Your task to perform on an android device: turn off picture-in-picture Image 0: 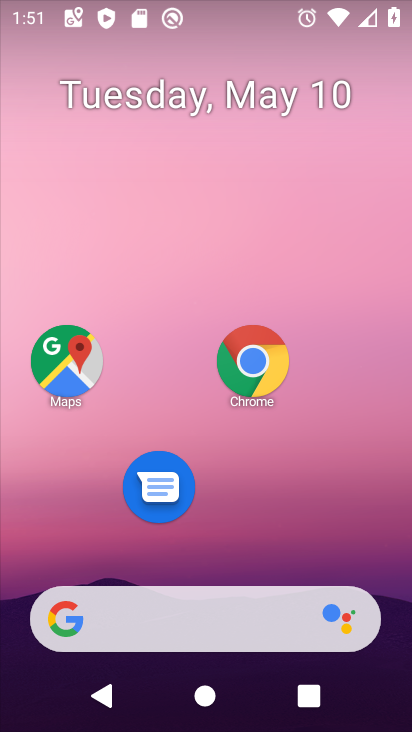
Step 0: drag from (326, 528) to (211, 193)
Your task to perform on an android device: turn off picture-in-picture Image 1: 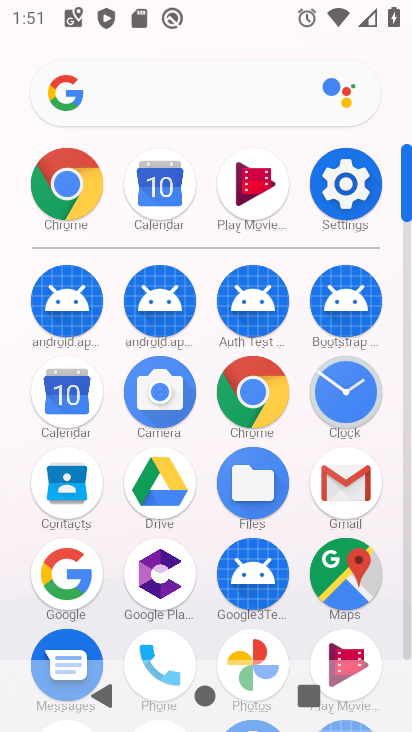
Step 1: click (341, 170)
Your task to perform on an android device: turn off picture-in-picture Image 2: 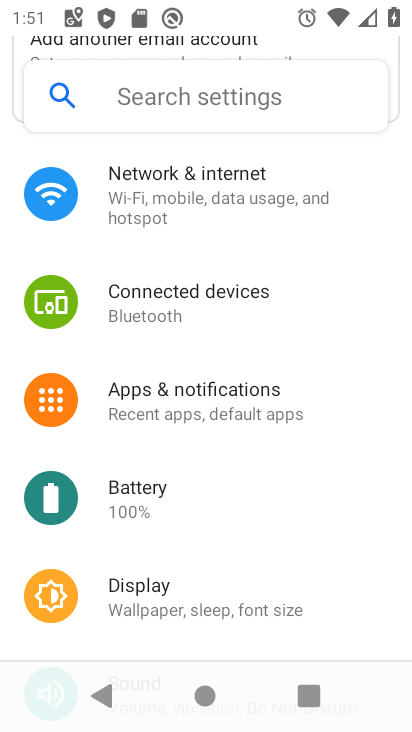
Step 2: click (194, 380)
Your task to perform on an android device: turn off picture-in-picture Image 3: 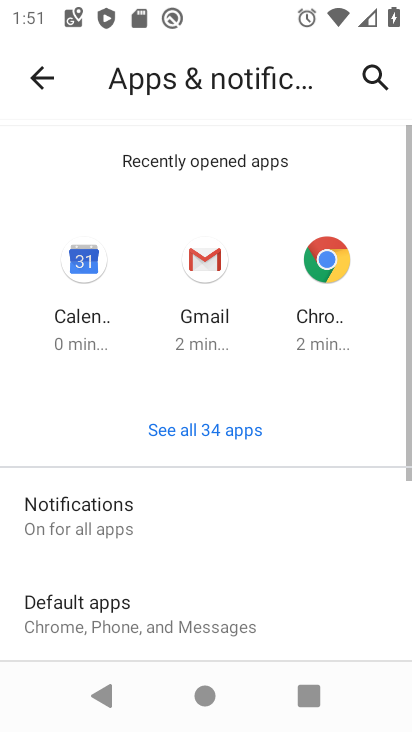
Step 3: drag from (164, 546) to (143, 303)
Your task to perform on an android device: turn off picture-in-picture Image 4: 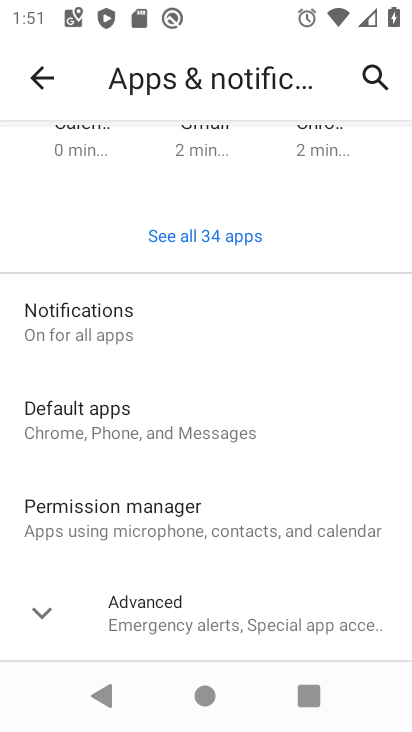
Step 4: click (150, 536)
Your task to perform on an android device: turn off picture-in-picture Image 5: 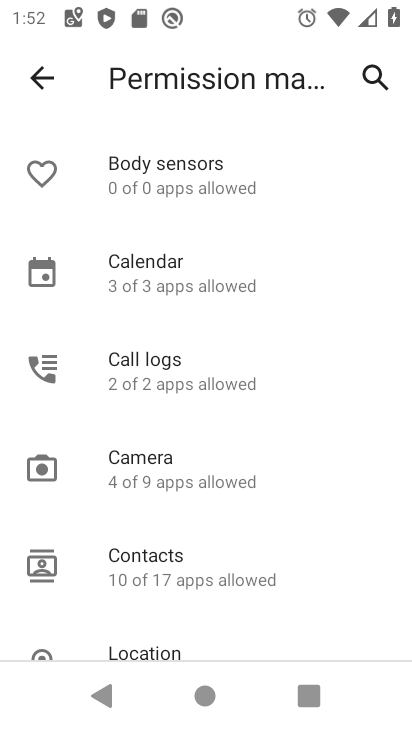
Step 5: click (32, 74)
Your task to perform on an android device: turn off picture-in-picture Image 6: 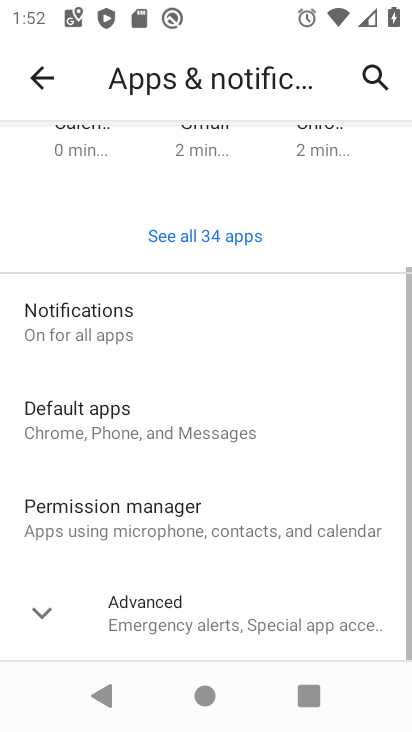
Step 6: drag from (204, 564) to (153, 272)
Your task to perform on an android device: turn off picture-in-picture Image 7: 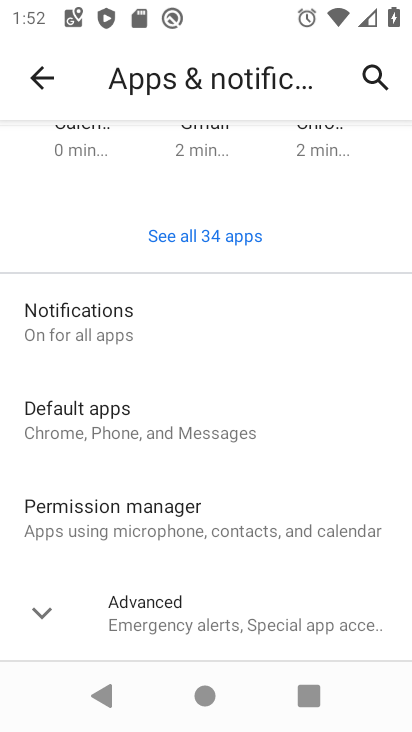
Step 7: click (140, 619)
Your task to perform on an android device: turn off picture-in-picture Image 8: 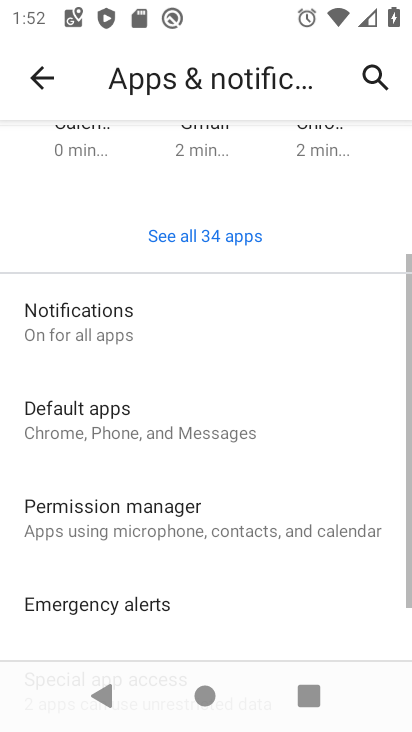
Step 8: drag from (140, 573) to (138, 273)
Your task to perform on an android device: turn off picture-in-picture Image 9: 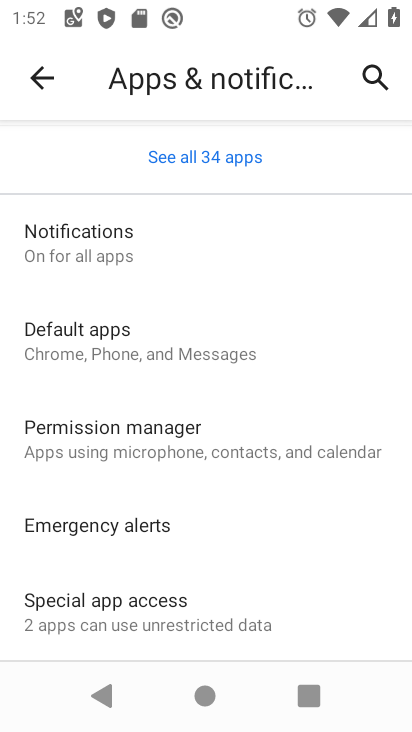
Step 9: click (191, 614)
Your task to perform on an android device: turn off picture-in-picture Image 10: 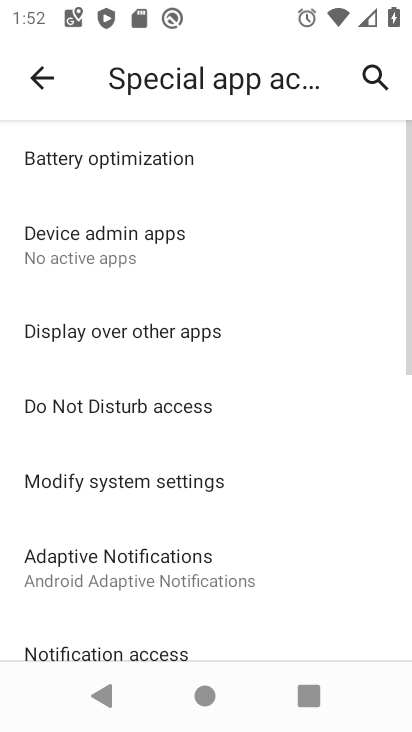
Step 10: drag from (191, 614) to (158, 433)
Your task to perform on an android device: turn off picture-in-picture Image 11: 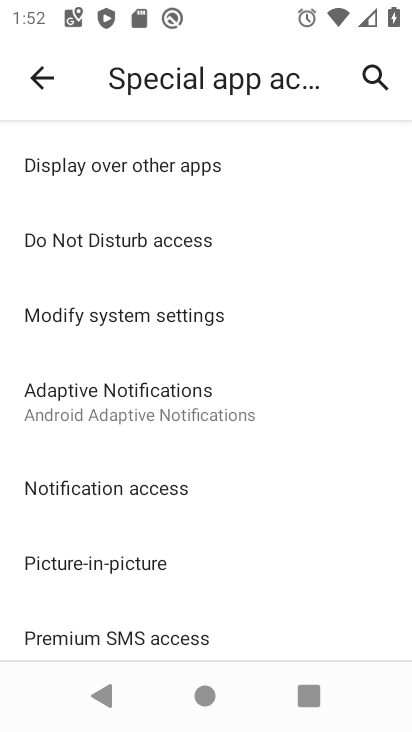
Step 11: click (158, 559)
Your task to perform on an android device: turn off picture-in-picture Image 12: 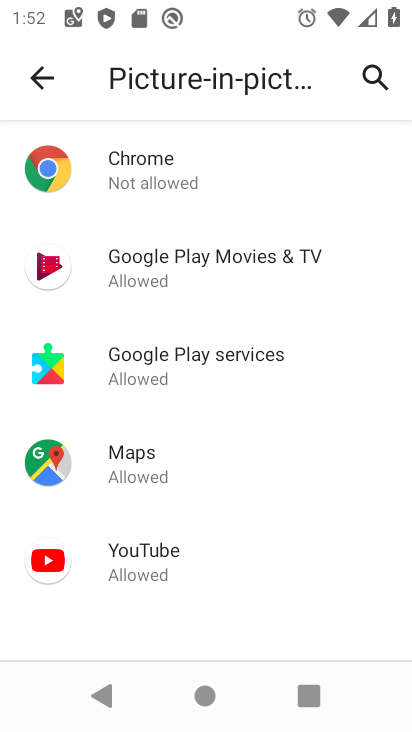
Step 12: click (251, 201)
Your task to perform on an android device: turn off picture-in-picture Image 13: 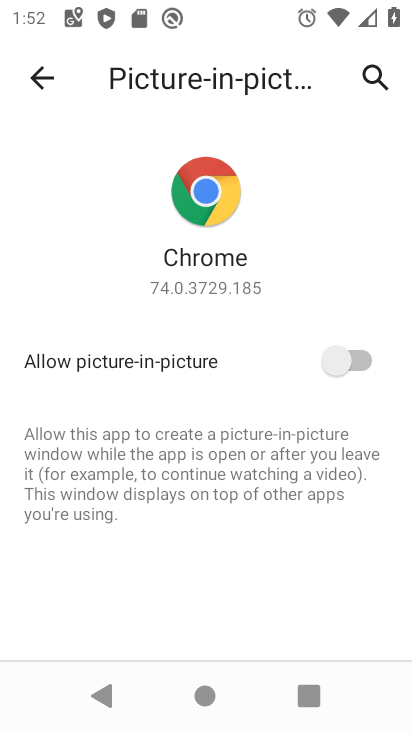
Step 13: click (352, 353)
Your task to perform on an android device: turn off picture-in-picture Image 14: 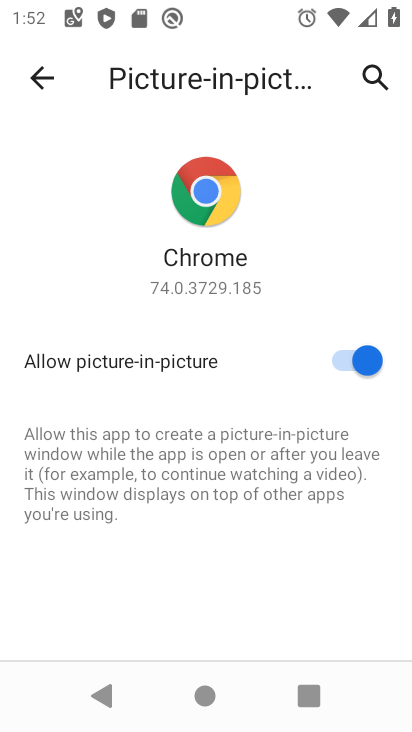
Step 14: task complete